Your task to perform on an android device: Go to battery settings Image 0: 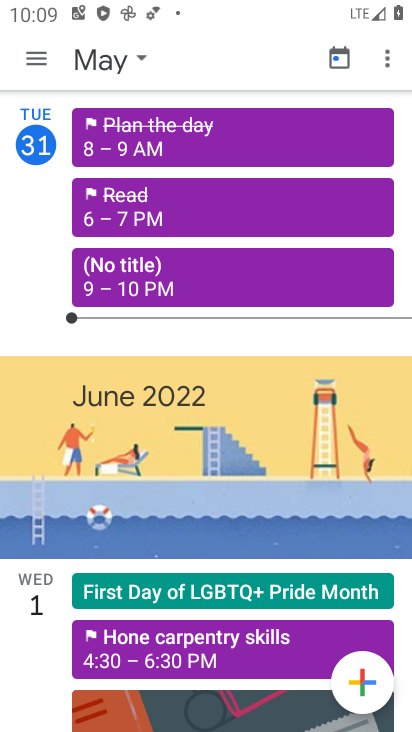
Step 0: press home button
Your task to perform on an android device: Go to battery settings Image 1: 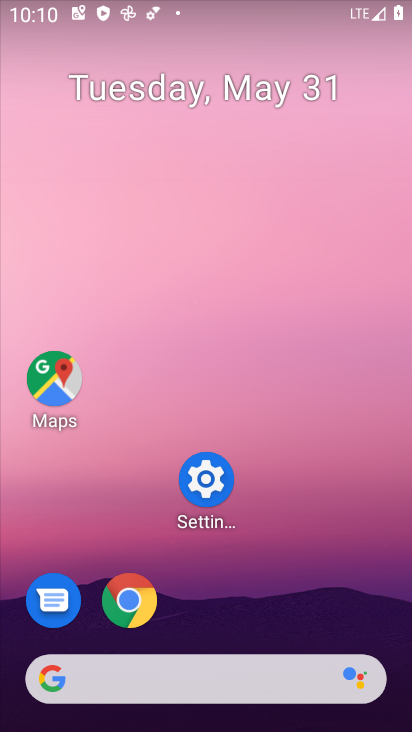
Step 1: click (212, 489)
Your task to perform on an android device: Go to battery settings Image 2: 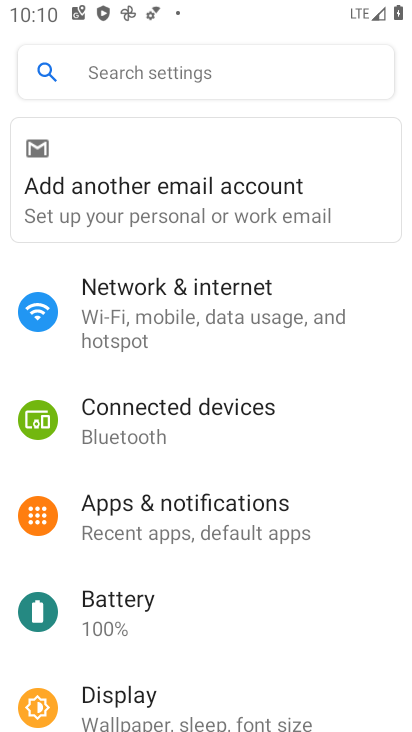
Step 2: click (155, 609)
Your task to perform on an android device: Go to battery settings Image 3: 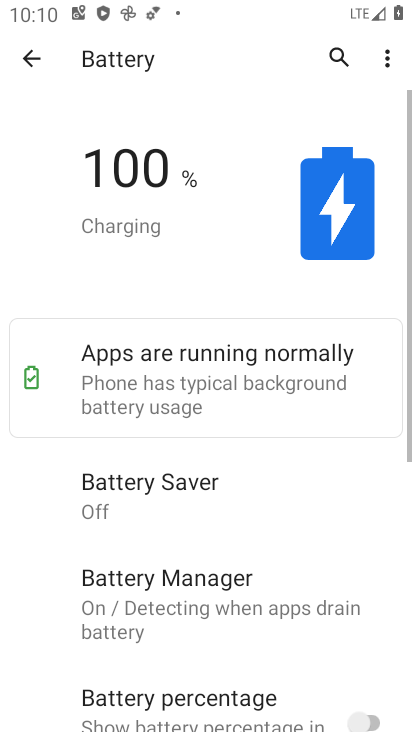
Step 3: task complete